Your task to perform on an android device: see tabs open on other devices in the chrome app Image 0: 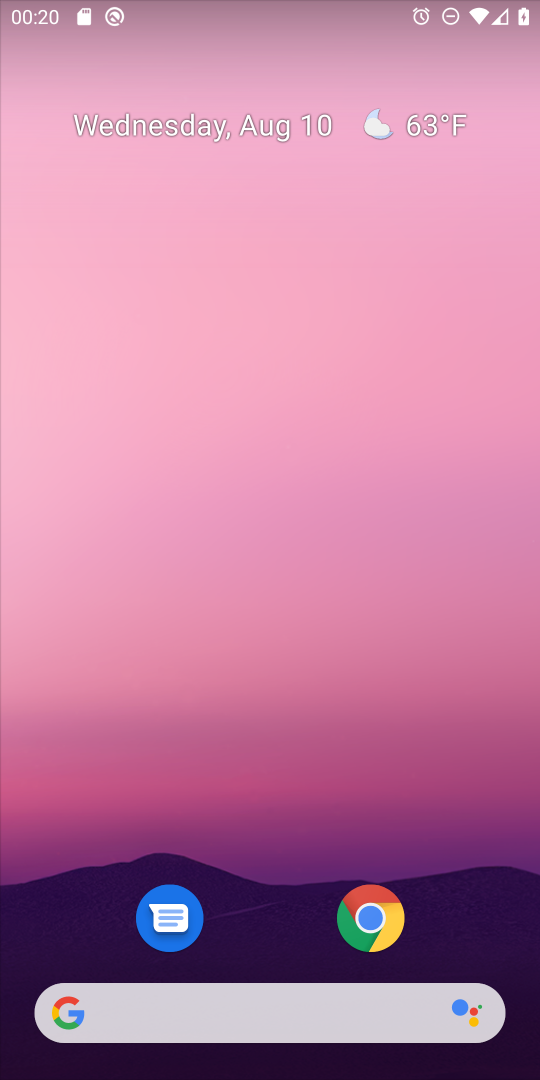
Step 0: drag from (283, 928) to (267, 112)
Your task to perform on an android device: see tabs open on other devices in the chrome app Image 1: 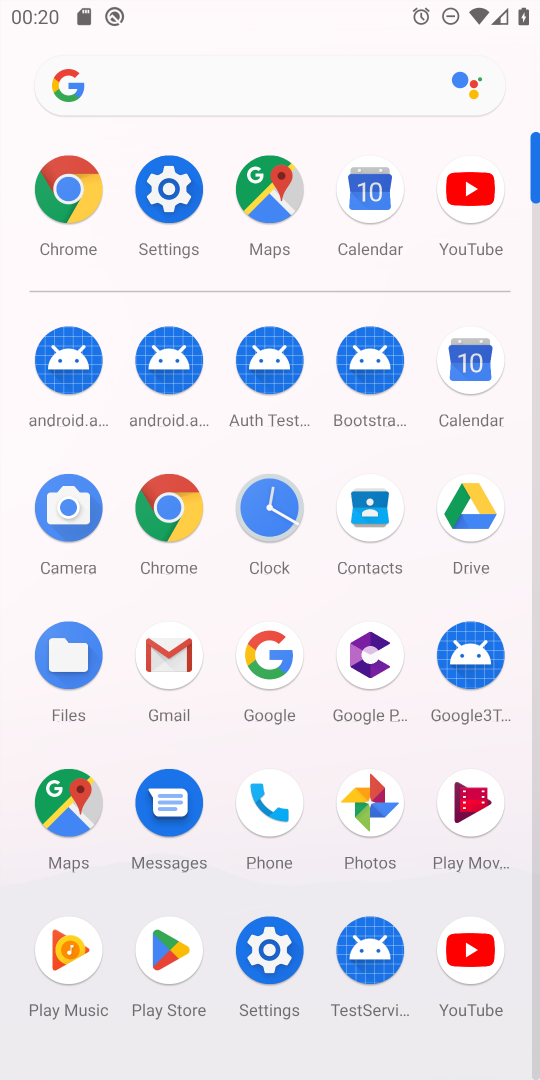
Step 1: click (177, 506)
Your task to perform on an android device: see tabs open on other devices in the chrome app Image 2: 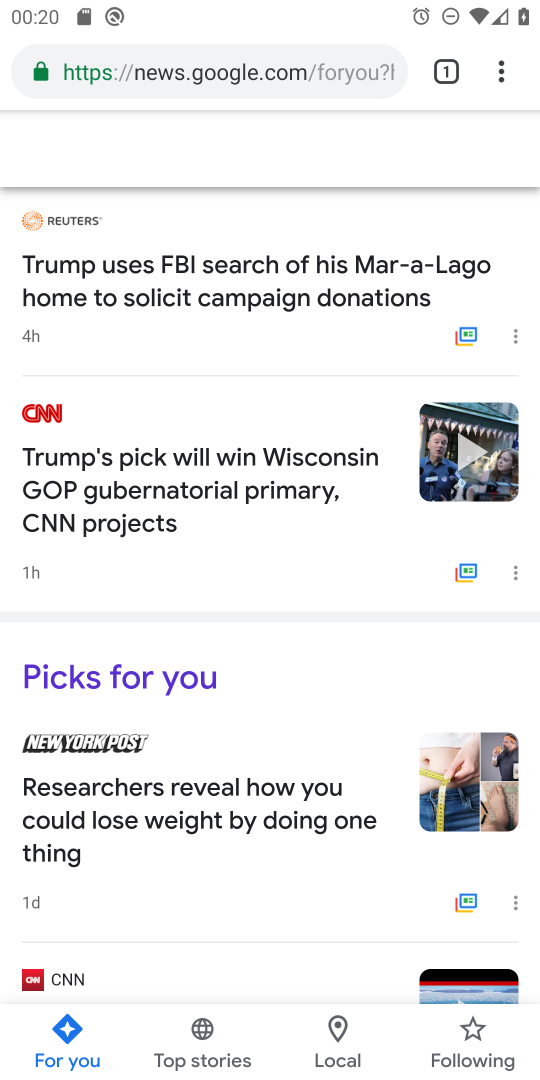
Step 2: task complete